Your task to perform on an android device: turn vacation reply on in the gmail app Image 0: 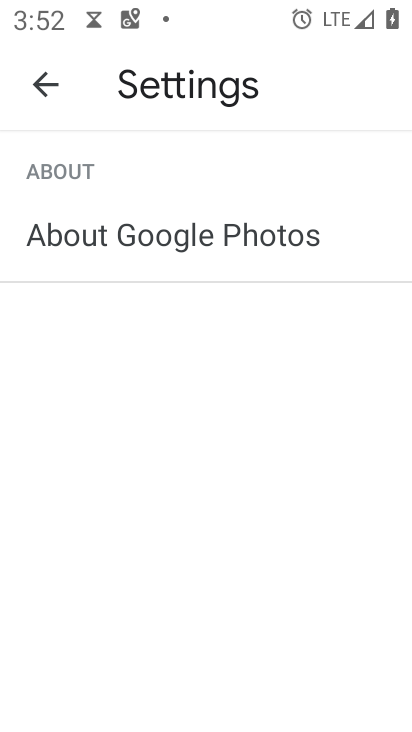
Step 0: press home button
Your task to perform on an android device: turn vacation reply on in the gmail app Image 1: 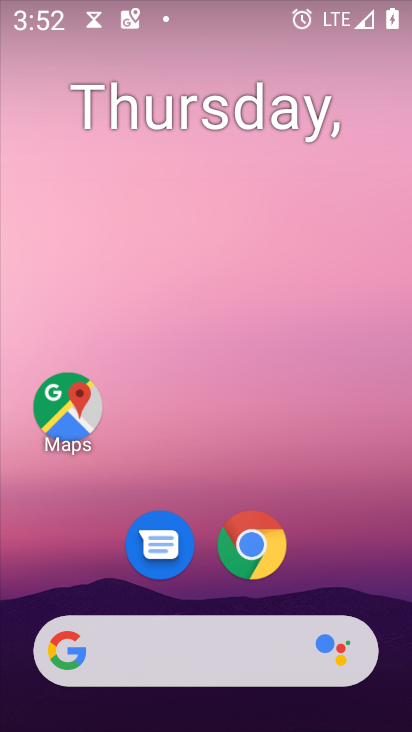
Step 1: drag from (332, 562) to (309, 29)
Your task to perform on an android device: turn vacation reply on in the gmail app Image 2: 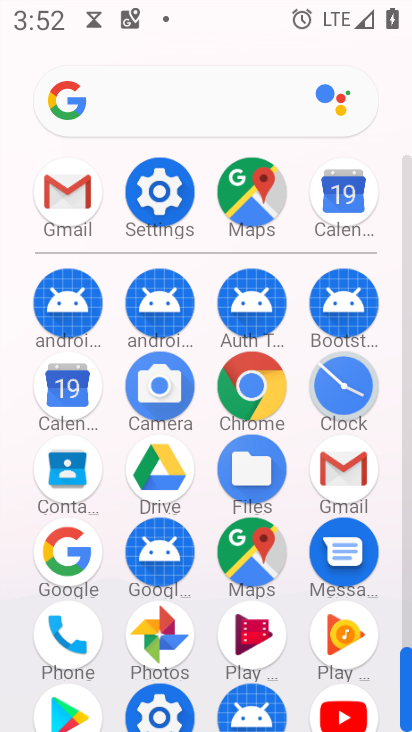
Step 2: click (47, 203)
Your task to perform on an android device: turn vacation reply on in the gmail app Image 3: 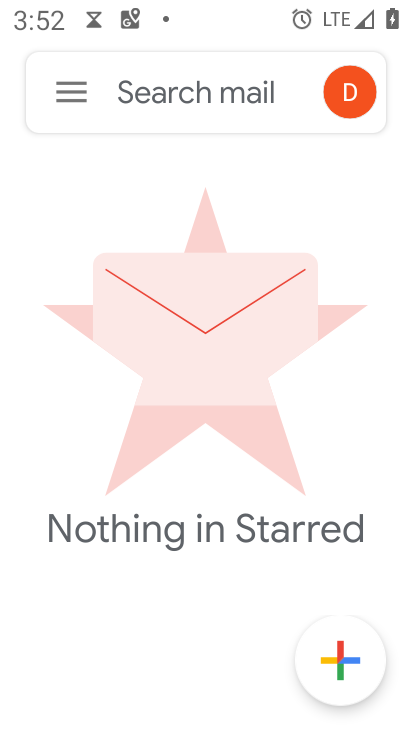
Step 3: click (82, 91)
Your task to perform on an android device: turn vacation reply on in the gmail app Image 4: 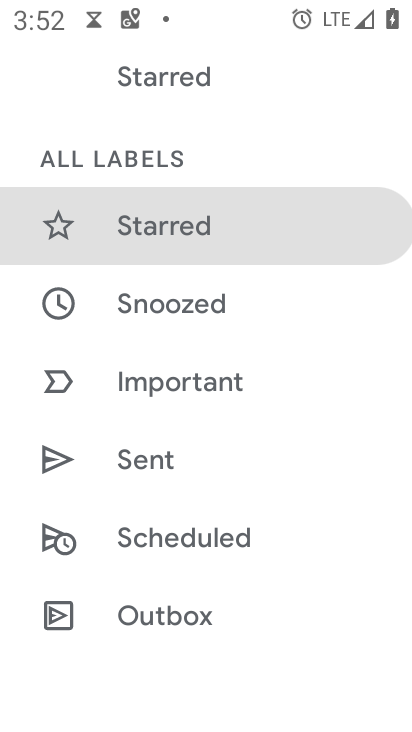
Step 4: drag from (142, 598) to (176, 92)
Your task to perform on an android device: turn vacation reply on in the gmail app Image 5: 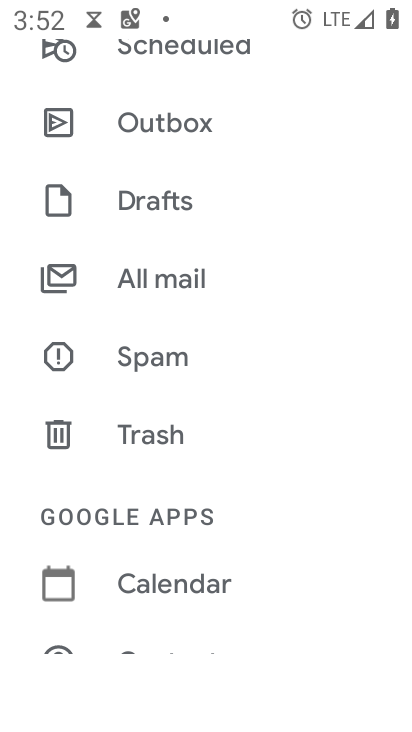
Step 5: drag from (184, 582) to (226, 123)
Your task to perform on an android device: turn vacation reply on in the gmail app Image 6: 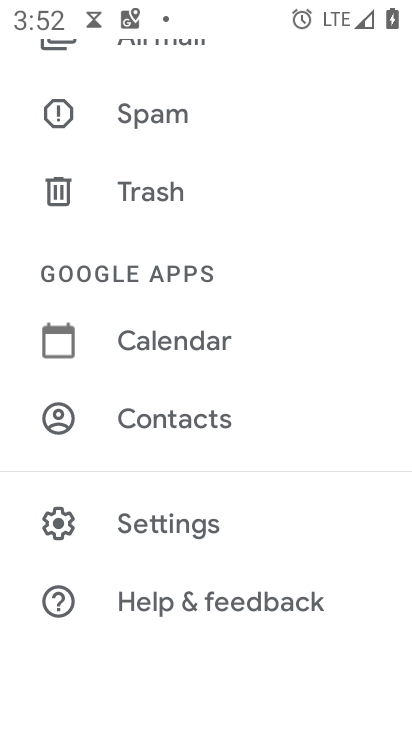
Step 6: click (143, 517)
Your task to perform on an android device: turn vacation reply on in the gmail app Image 7: 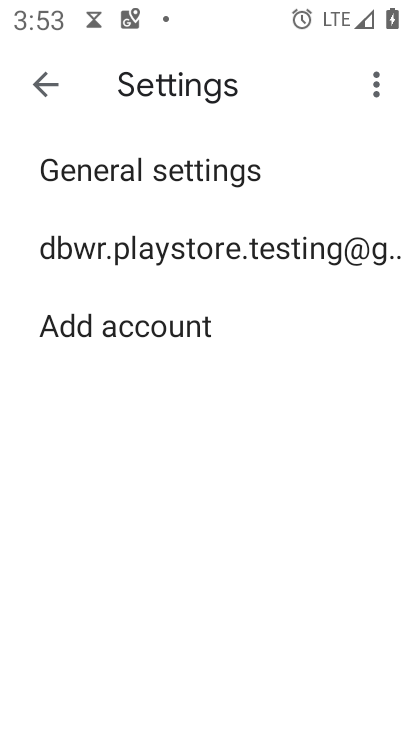
Step 7: click (139, 240)
Your task to perform on an android device: turn vacation reply on in the gmail app Image 8: 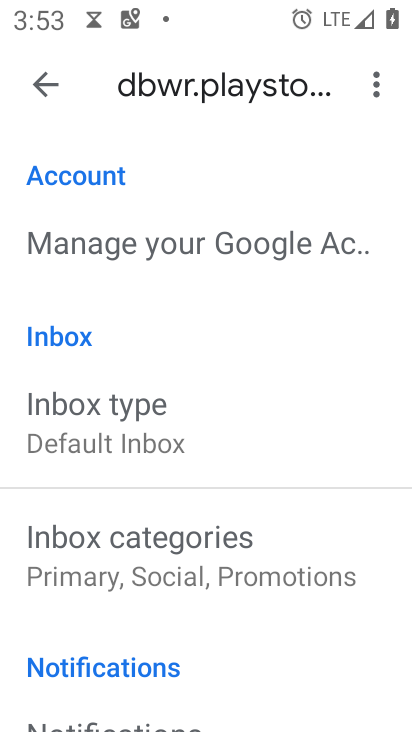
Step 8: drag from (163, 630) to (204, 182)
Your task to perform on an android device: turn vacation reply on in the gmail app Image 9: 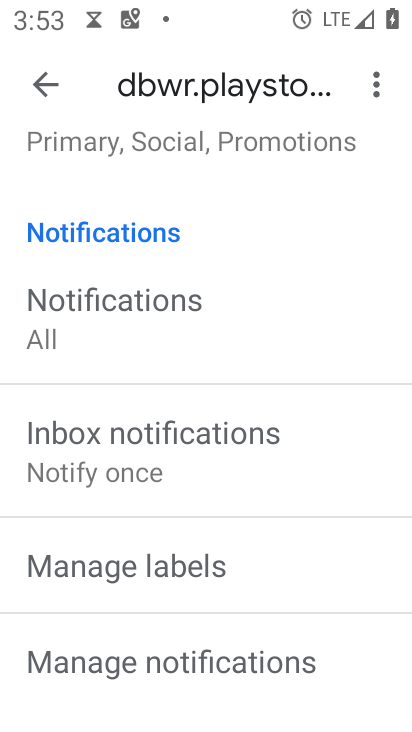
Step 9: drag from (175, 585) to (179, 110)
Your task to perform on an android device: turn vacation reply on in the gmail app Image 10: 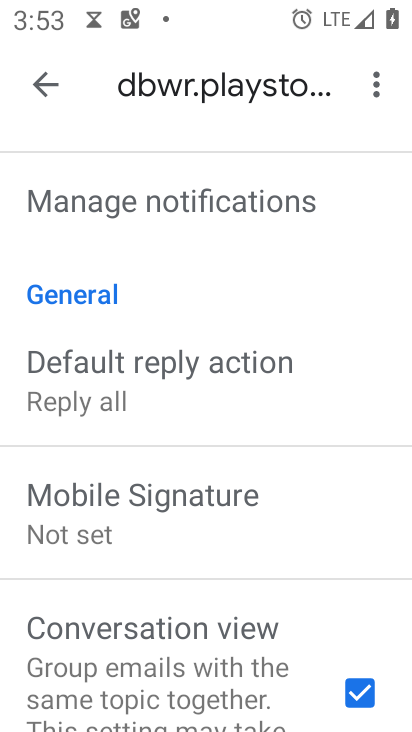
Step 10: drag from (223, 540) to (224, 168)
Your task to perform on an android device: turn vacation reply on in the gmail app Image 11: 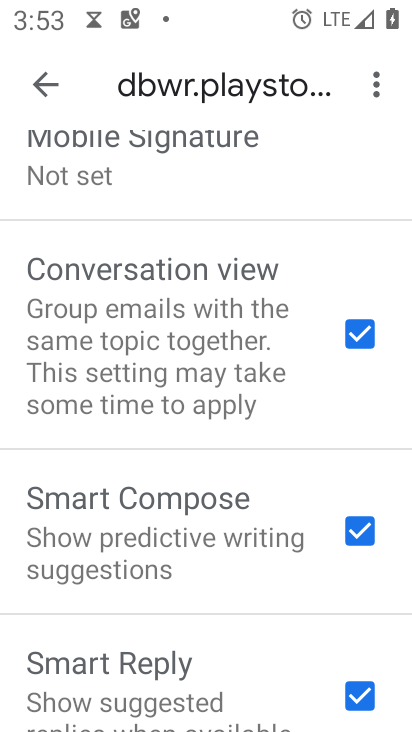
Step 11: drag from (191, 639) to (218, 245)
Your task to perform on an android device: turn vacation reply on in the gmail app Image 12: 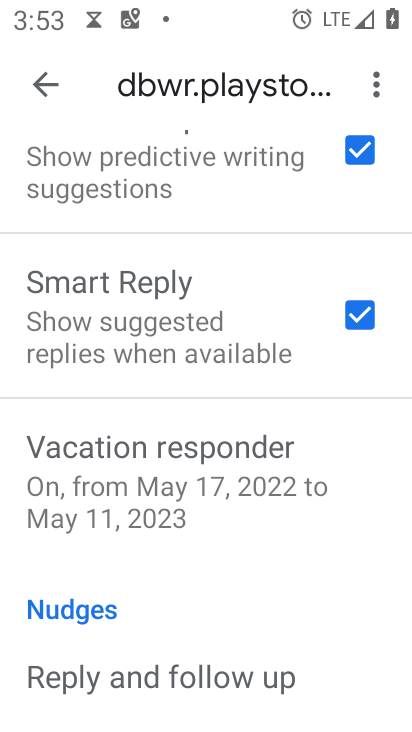
Step 12: click (151, 459)
Your task to perform on an android device: turn vacation reply on in the gmail app Image 13: 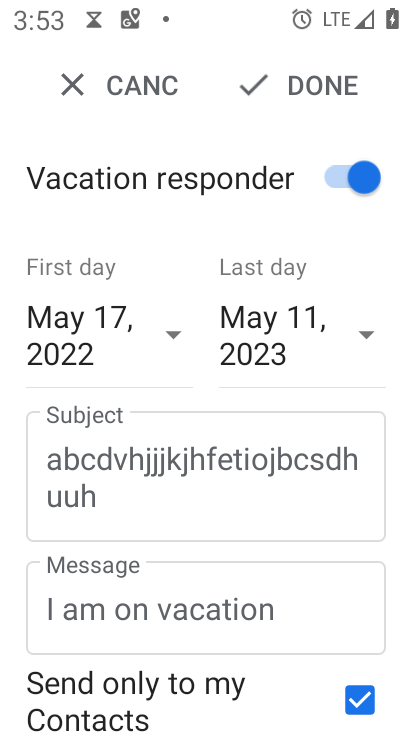
Step 13: task complete